Your task to perform on an android device: turn on airplane mode Image 0: 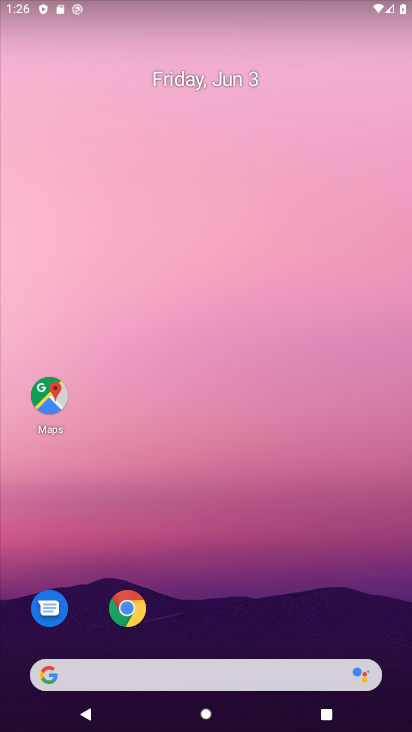
Step 0: drag from (211, 661) to (302, 172)
Your task to perform on an android device: turn on airplane mode Image 1: 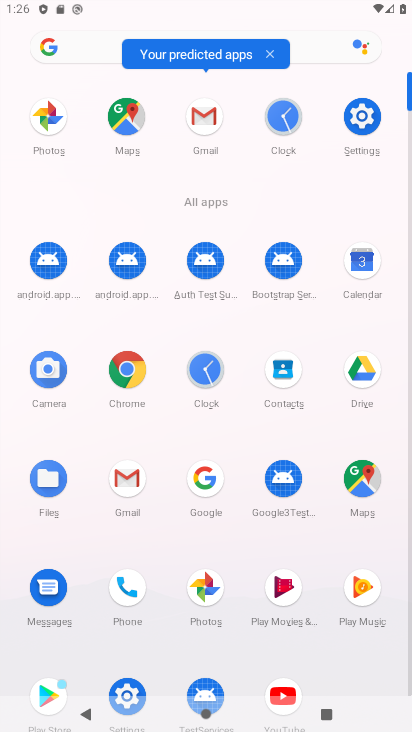
Step 1: drag from (153, 593) to (221, 356)
Your task to perform on an android device: turn on airplane mode Image 2: 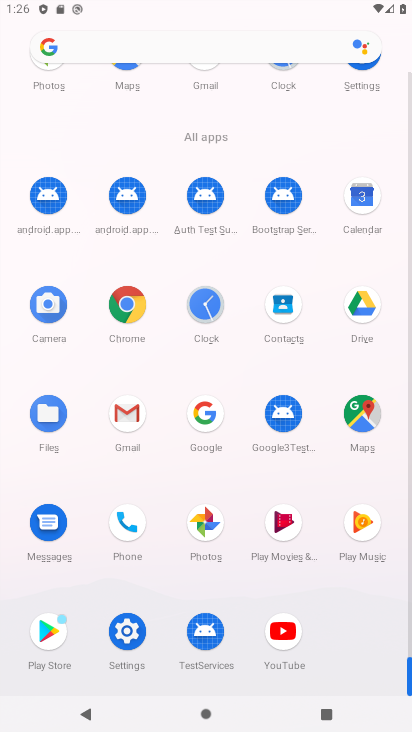
Step 2: click (127, 620)
Your task to perform on an android device: turn on airplane mode Image 3: 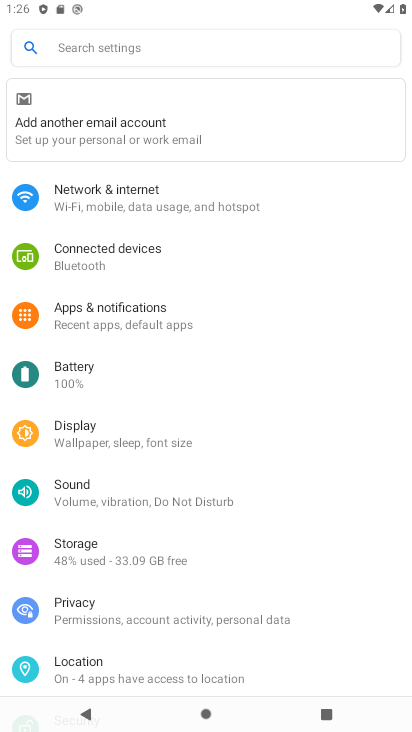
Step 3: click (247, 202)
Your task to perform on an android device: turn on airplane mode Image 4: 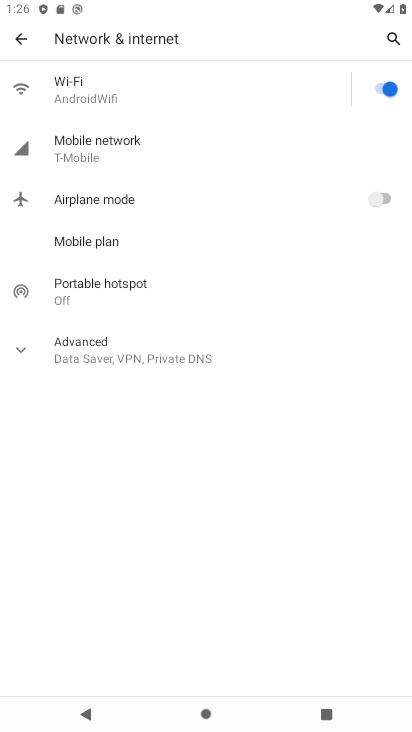
Step 4: click (404, 189)
Your task to perform on an android device: turn on airplane mode Image 5: 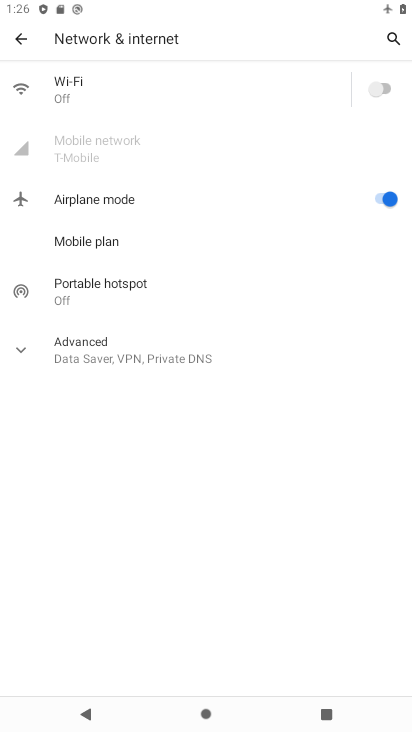
Step 5: task complete